Your task to perform on an android device: turn off javascript in the chrome app Image 0: 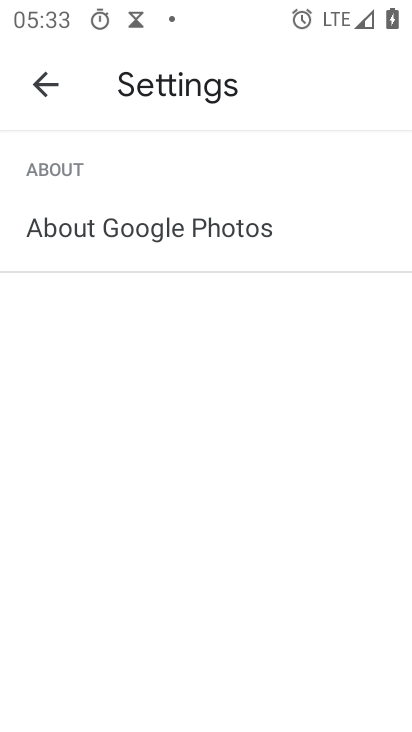
Step 0: press home button
Your task to perform on an android device: turn off javascript in the chrome app Image 1: 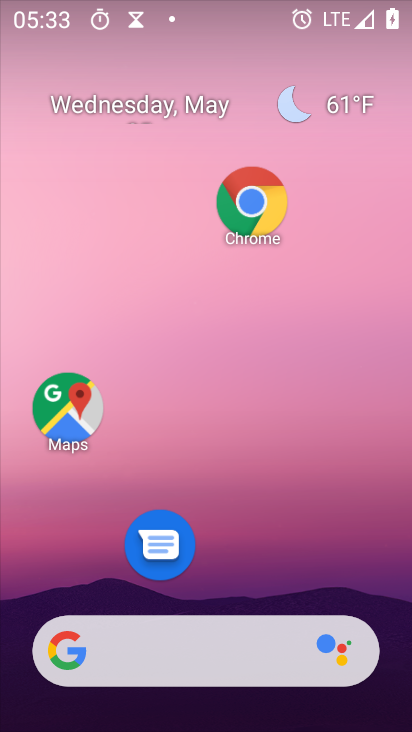
Step 1: click (262, 220)
Your task to perform on an android device: turn off javascript in the chrome app Image 2: 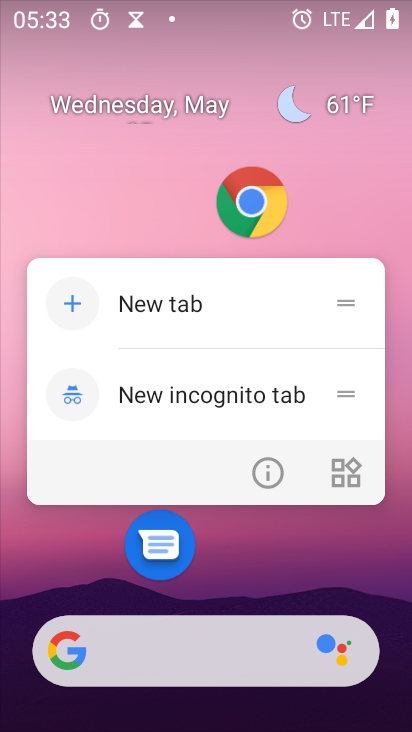
Step 2: click (262, 219)
Your task to perform on an android device: turn off javascript in the chrome app Image 3: 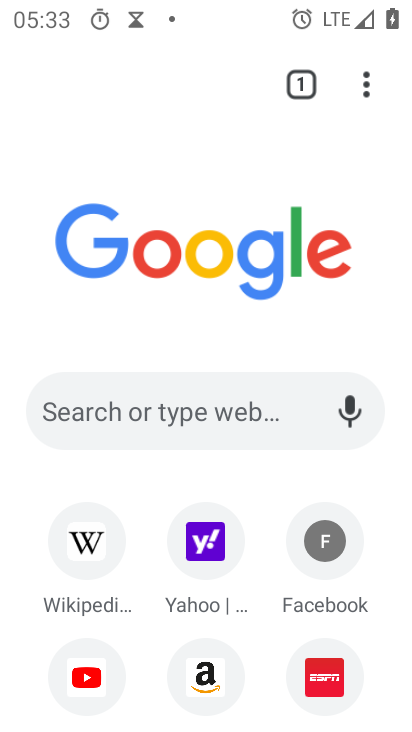
Step 3: click (366, 84)
Your task to perform on an android device: turn off javascript in the chrome app Image 4: 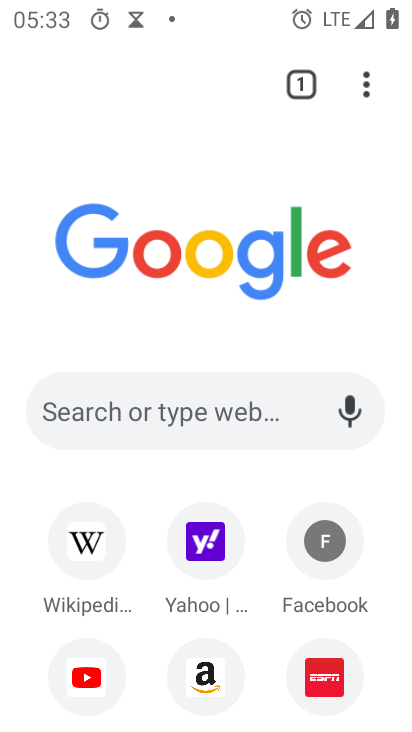
Step 4: click (371, 78)
Your task to perform on an android device: turn off javascript in the chrome app Image 5: 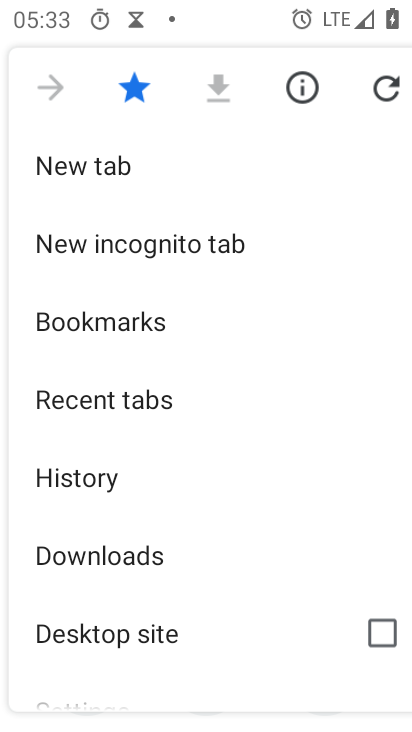
Step 5: drag from (168, 658) to (209, 329)
Your task to perform on an android device: turn off javascript in the chrome app Image 6: 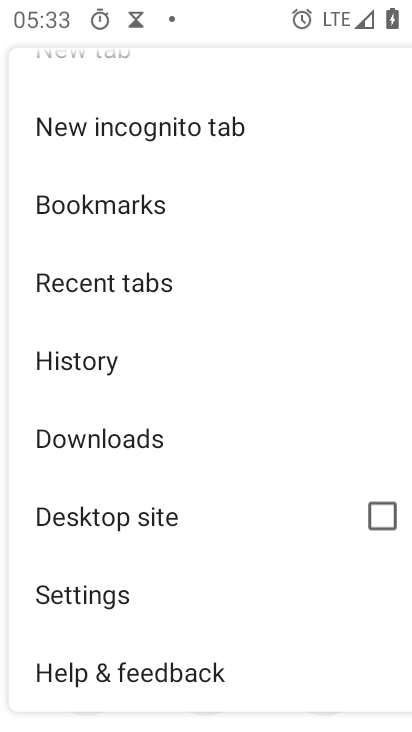
Step 6: click (99, 578)
Your task to perform on an android device: turn off javascript in the chrome app Image 7: 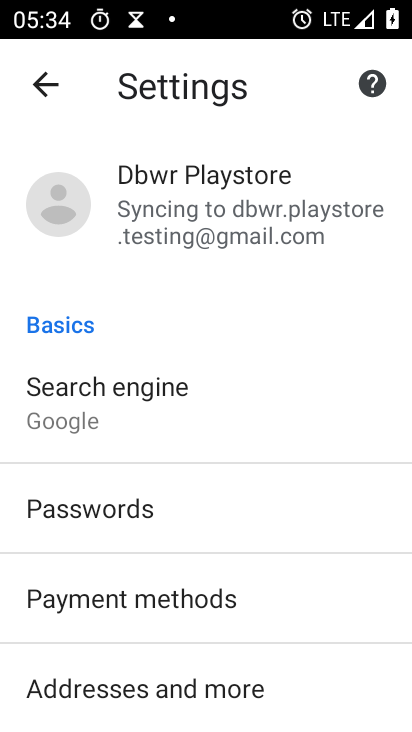
Step 7: drag from (152, 655) to (251, 260)
Your task to perform on an android device: turn off javascript in the chrome app Image 8: 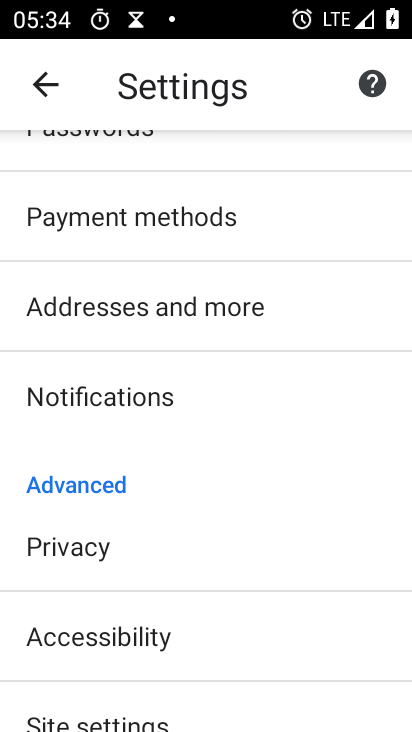
Step 8: drag from (157, 683) to (187, 366)
Your task to perform on an android device: turn off javascript in the chrome app Image 9: 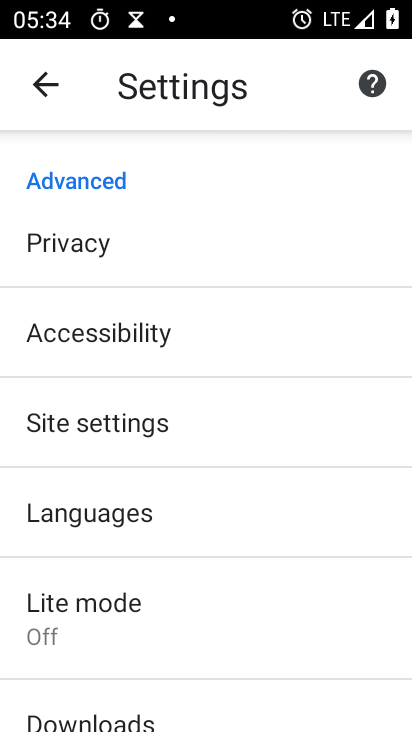
Step 9: click (96, 429)
Your task to perform on an android device: turn off javascript in the chrome app Image 10: 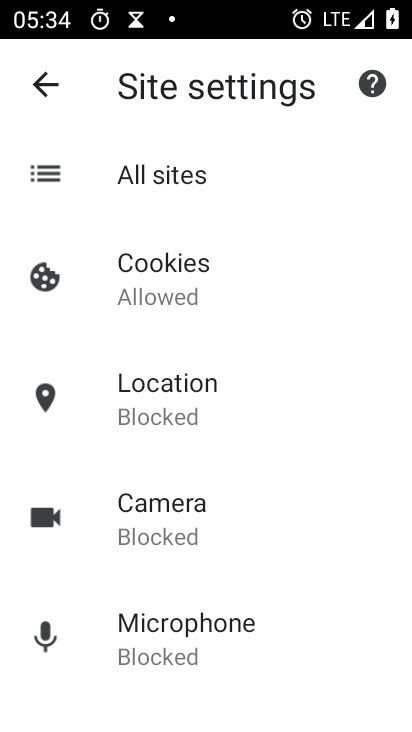
Step 10: drag from (212, 654) to (238, 290)
Your task to perform on an android device: turn off javascript in the chrome app Image 11: 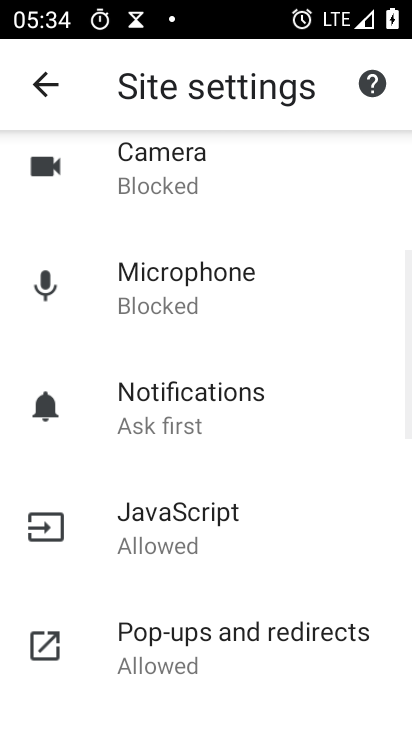
Step 11: click (184, 542)
Your task to perform on an android device: turn off javascript in the chrome app Image 12: 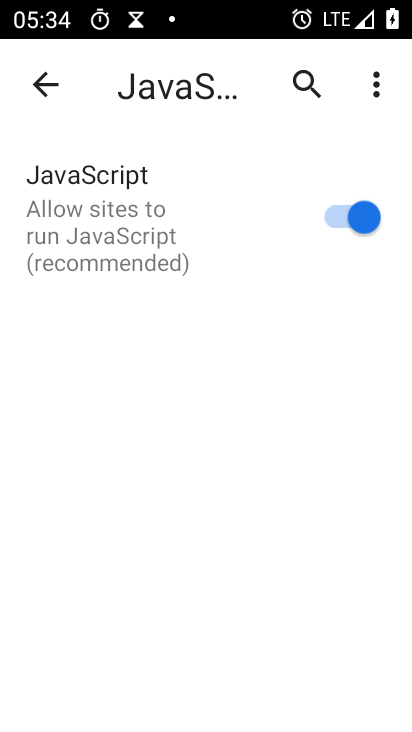
Step 12: click (334, 222)
Your task to perform on an android device: turn off javascript in the chrome app Image 13: 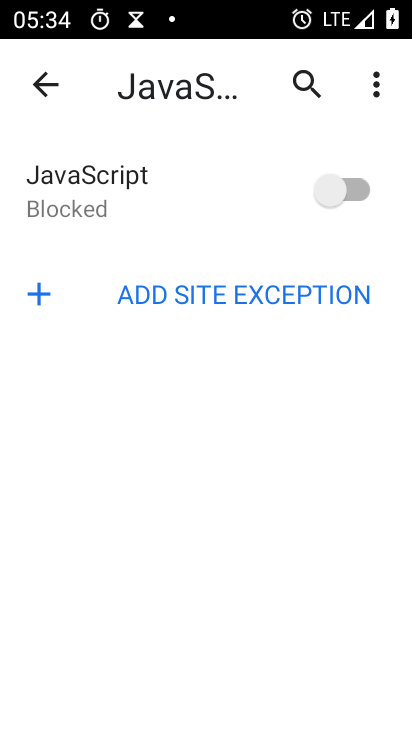
Step 13: task complete